Your task to perform on an android device: Open calendar and show me the fourth week of next month Image 0: 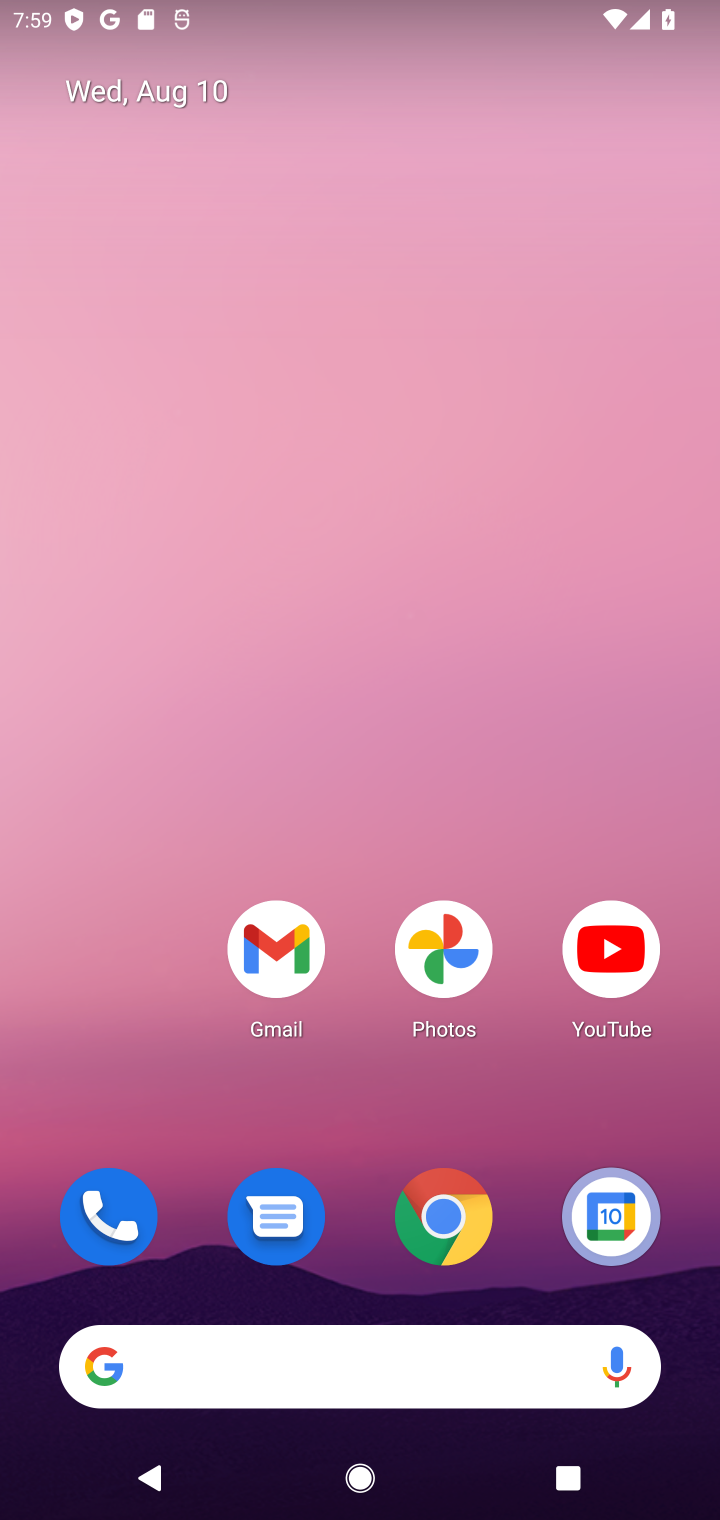
Step 0: drag from (1, 1465) to (336, 239)
Your task to perform on an android device: Open calendar and show me the fourth week of next month Image 1: 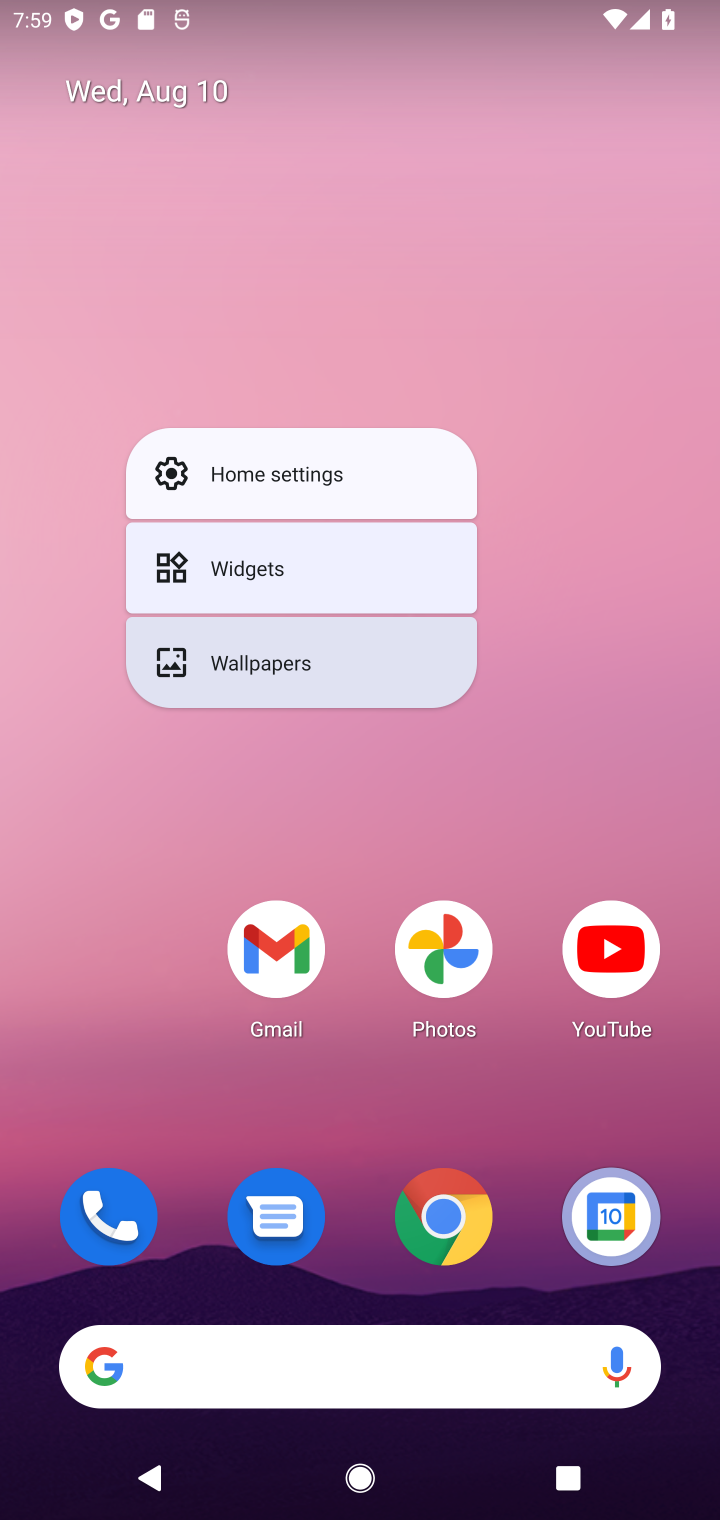
Step 1: click (441, 261)
Your task to perform on an android device: Open calendar and show me the fourth week of next month Image 2: 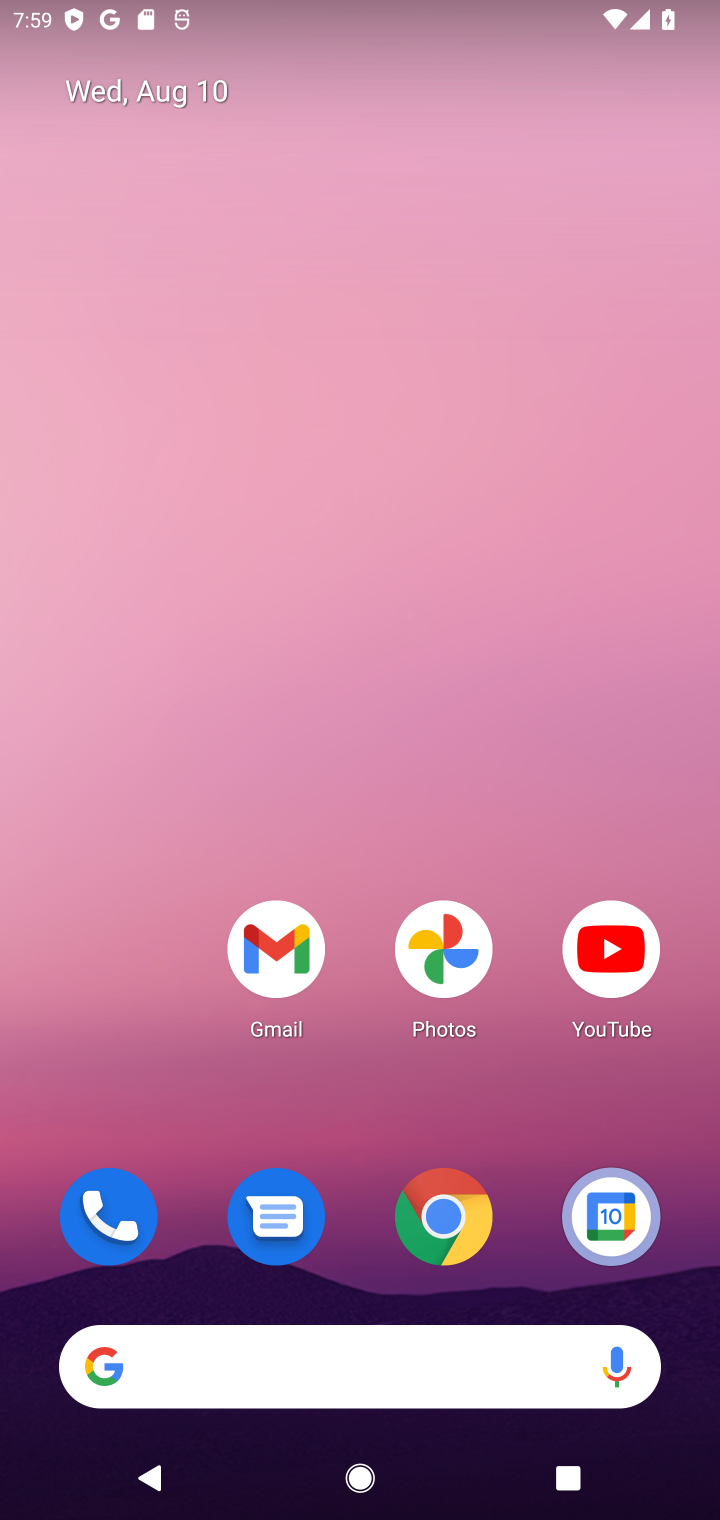
Step 2: drag from (214, 894) to (439, 204)
Your task to perform on an android device: Open calendar and show me the fourth week of next month Image 3: 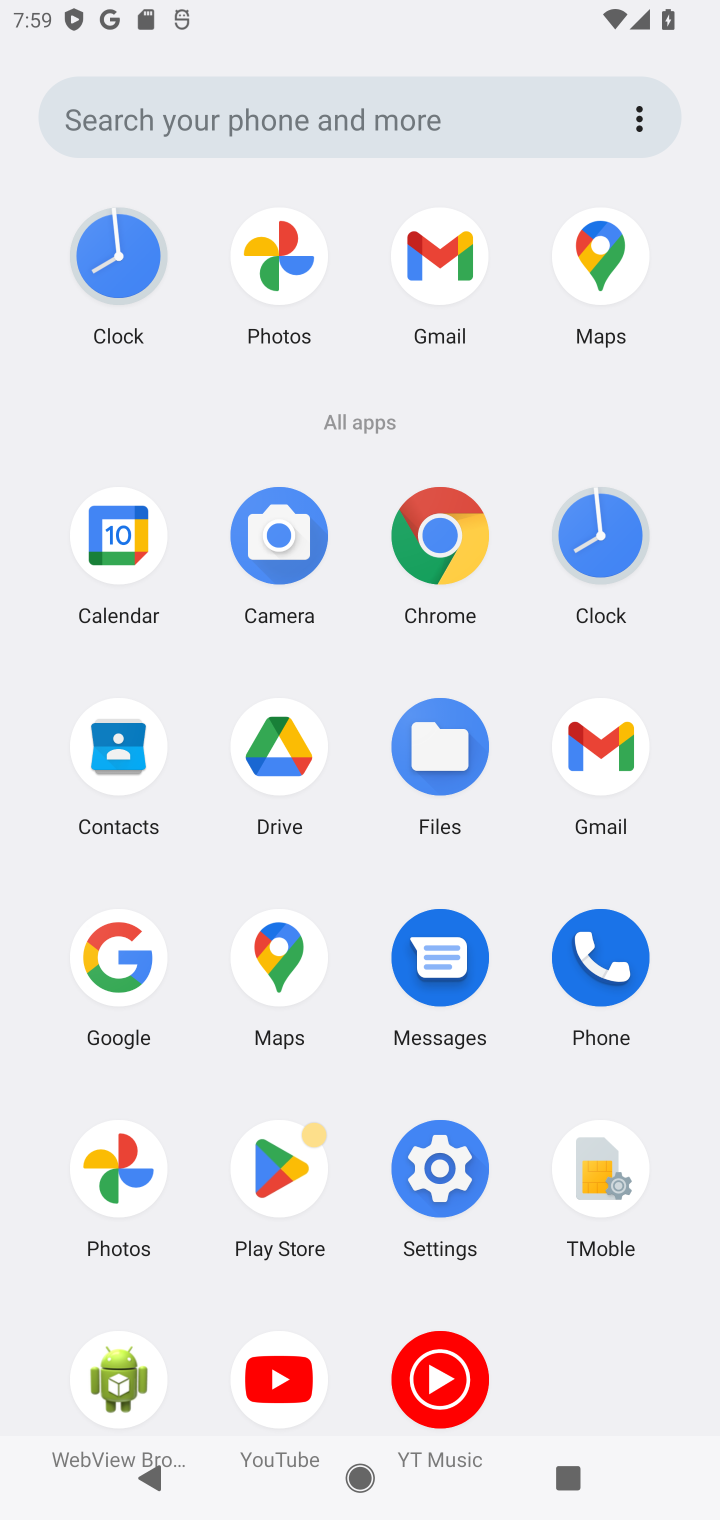
Step 3: click (95, 533)
Your task to perform on an android device: Open calendar and show me the fourth week of next month Image 4: 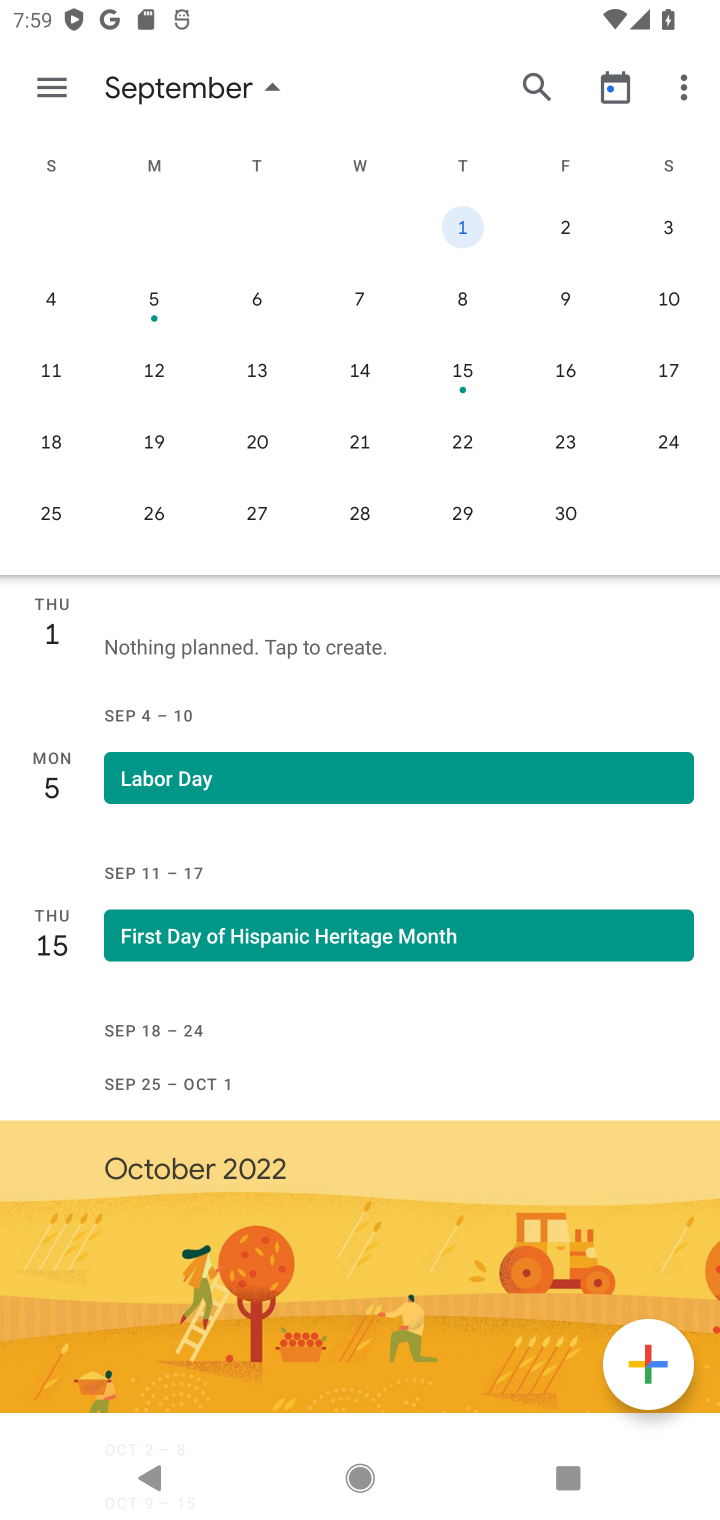
Step 4: click (353, 301)
Your task to perform on an android device: Open calendar and show me the fourth week of next month Image 5: 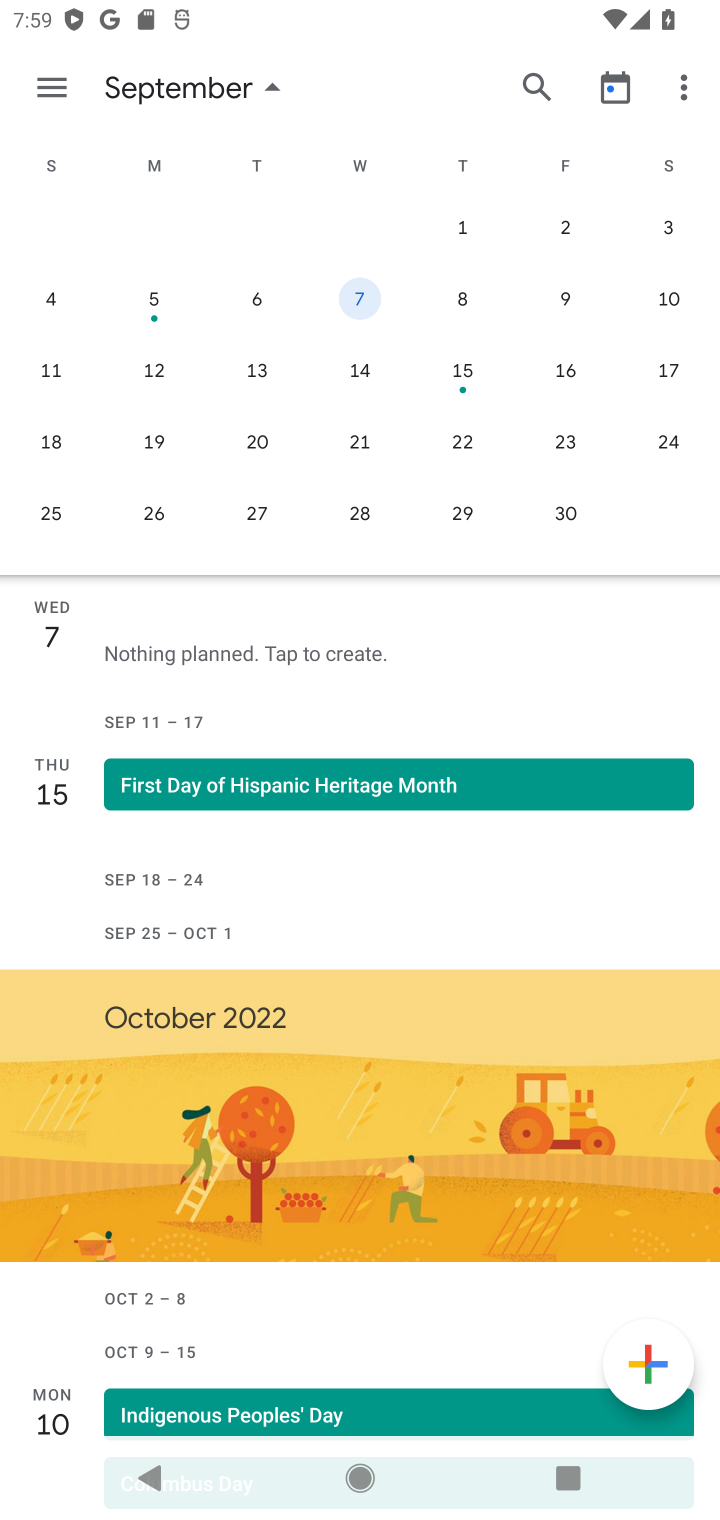
Step 5: click (257, 316)
Your task to perform on an android device: Open calendar and show me the fourth week of next month Image 6: 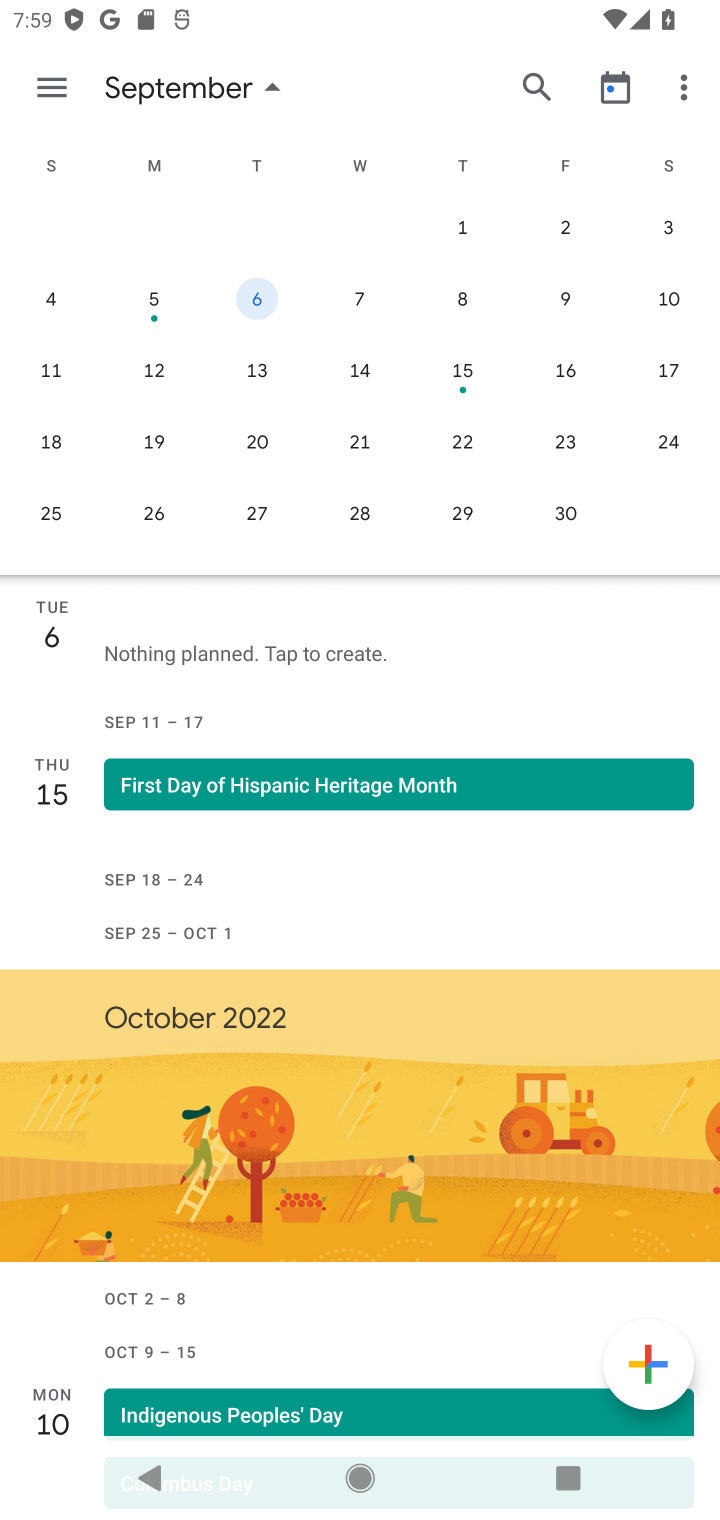
Step 6: click (248, 386)
Your task to perform on an android device: Open calendar and show me the fourth week of next month Image 7: 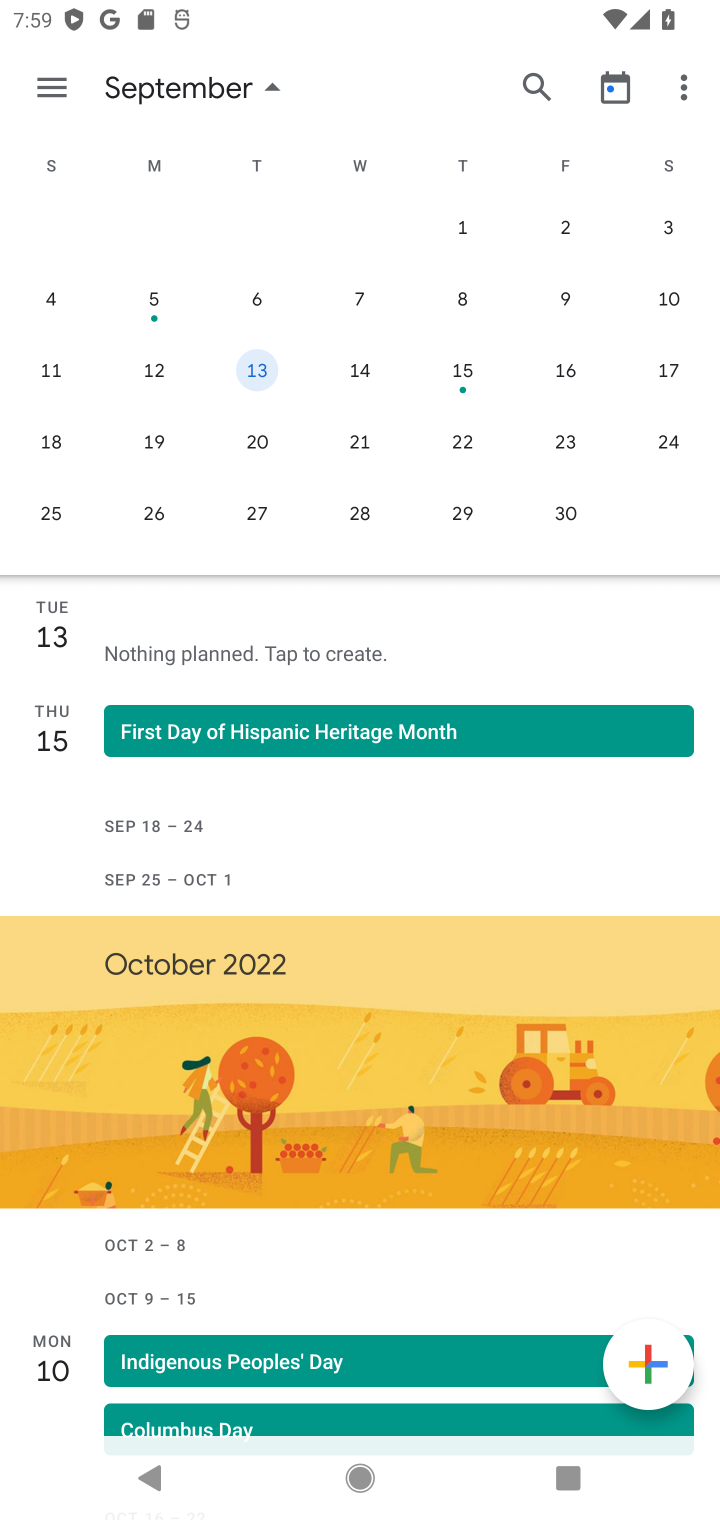
Step 7: click (369, 367)
Your task to perform on an android device: Open calendar and show me the fourth week of next month Image 8: 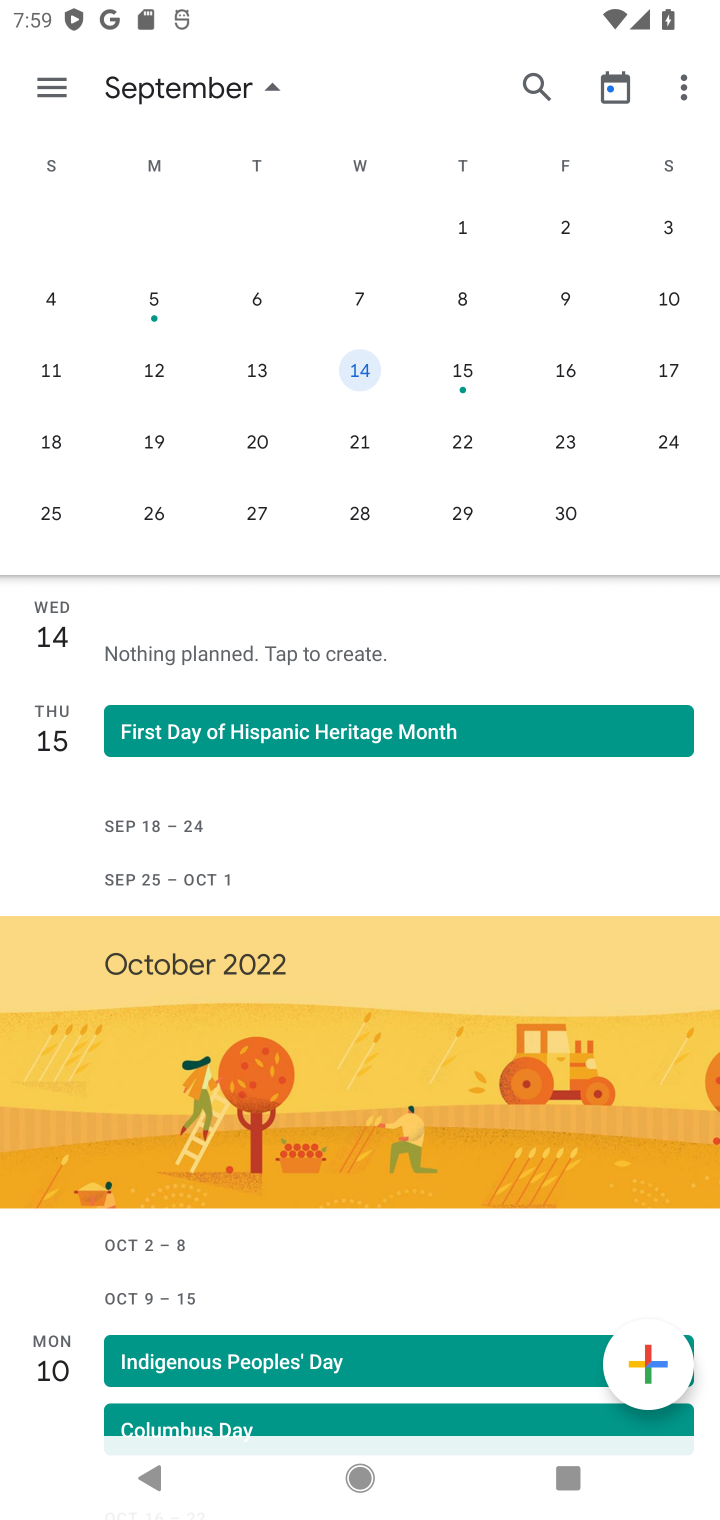
Step 8: click (256, 454)
Your task to perform on an android device: Open calendar and show me the fourth week of next month Image 9: 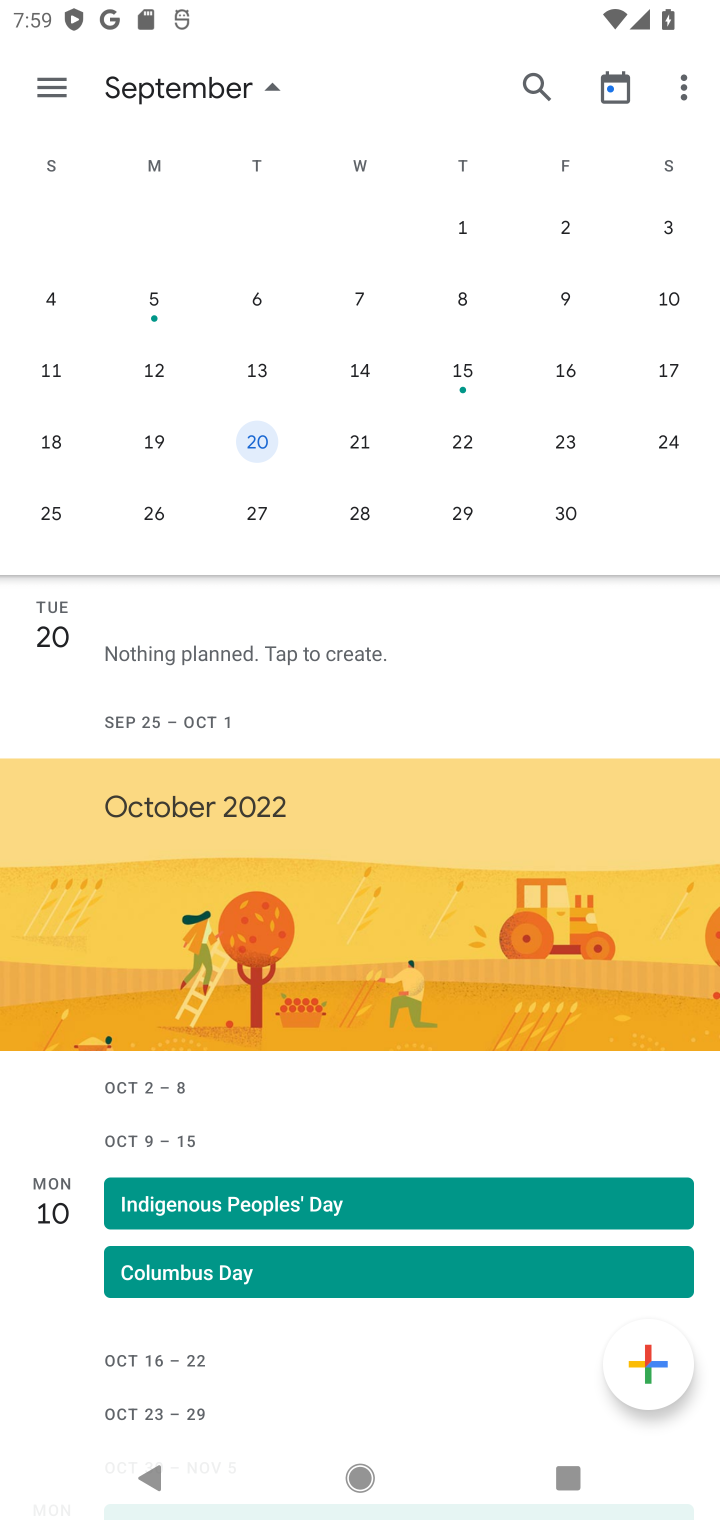
Step 9: click (350, 451)
Your task to perform on an android device: Open calendar and show me the fourth week of next month Image 10: 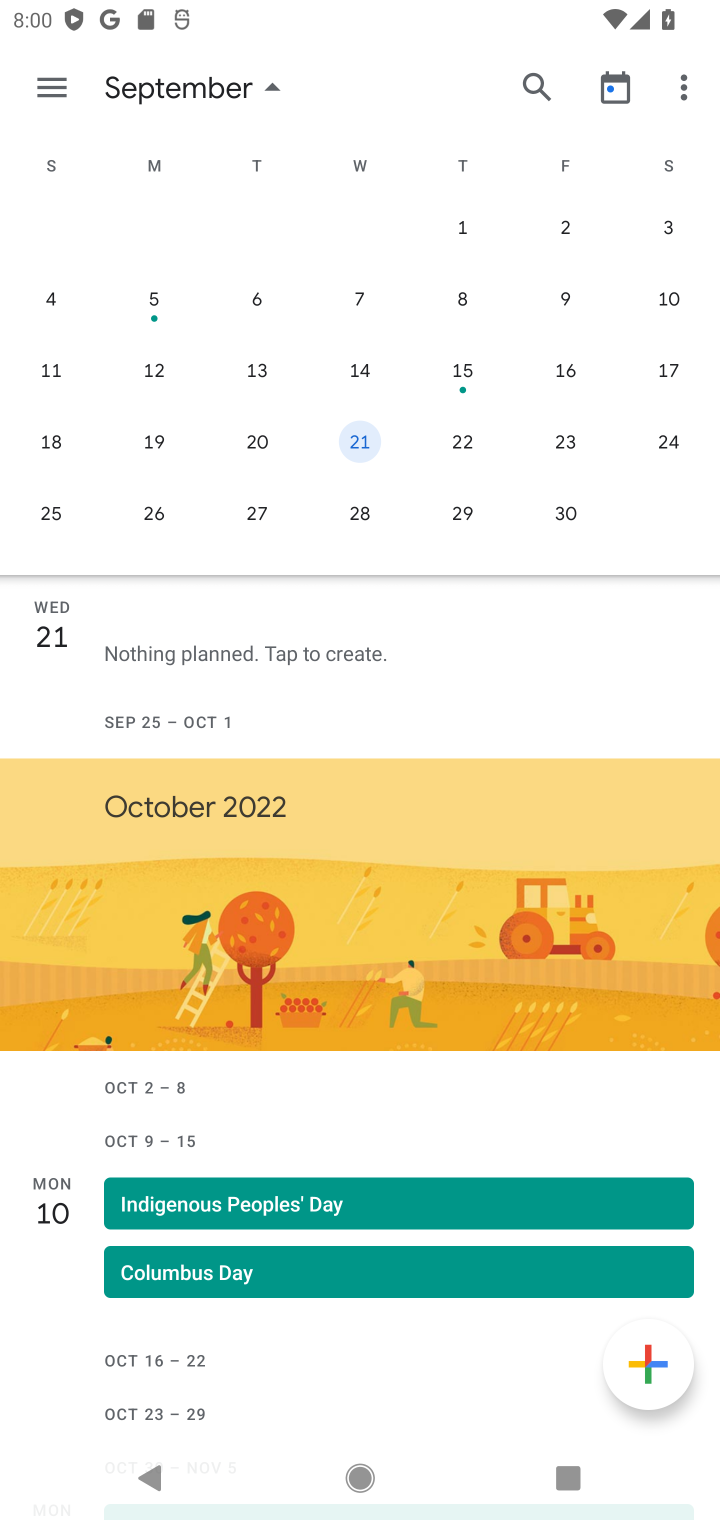
Step 10: task complete